Your task to perform on an android device: set an alarm Image 0: 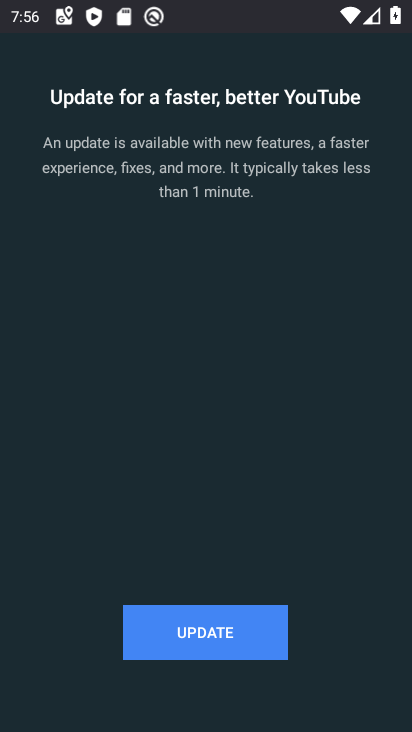
Step 0: press back button
Your task to perform on an android device: set an alarm Image 1: 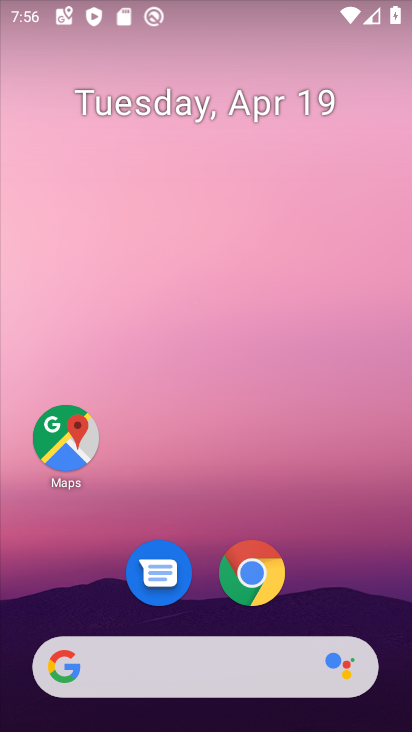
Step 1: drag from (263, 706) to (212, 150)
Your task to perform on an android device: set an alarm Image 2: 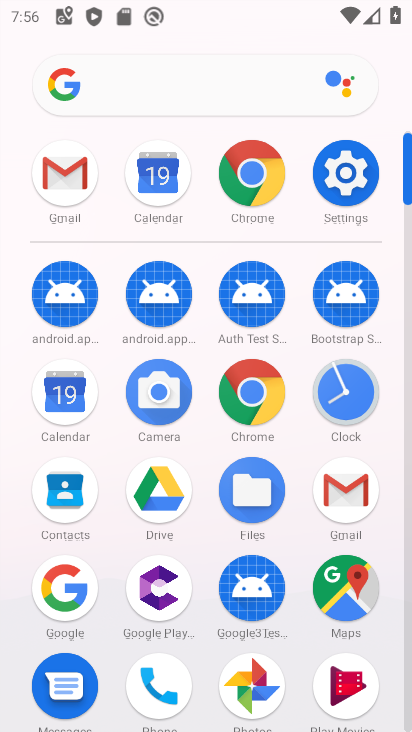
Step 2: click (342, 379)
Your task to perform on an android device: set an alarm Image 3: 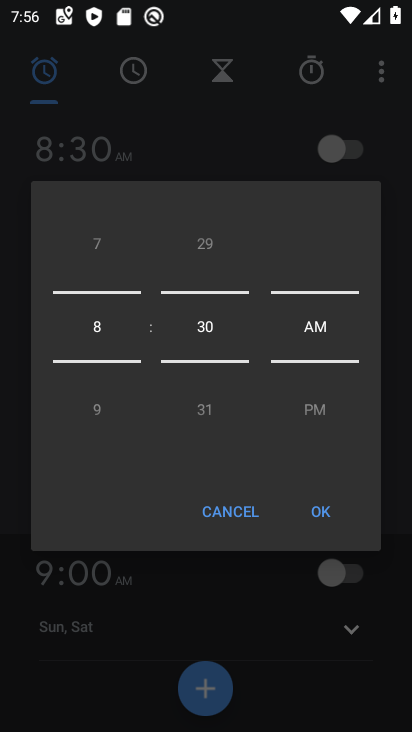
Step 3: click (225, 501)
Your task to perform on an android device: set an alarm Image 4: 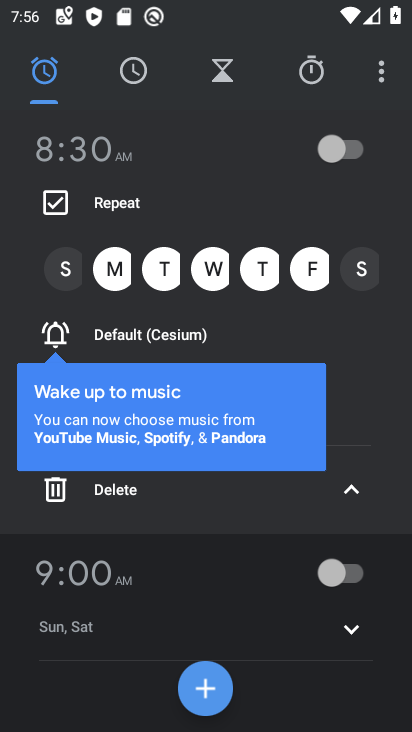
Step 4: click (354, 139)
Your task to perform on an android device: set an alarm Image 5: 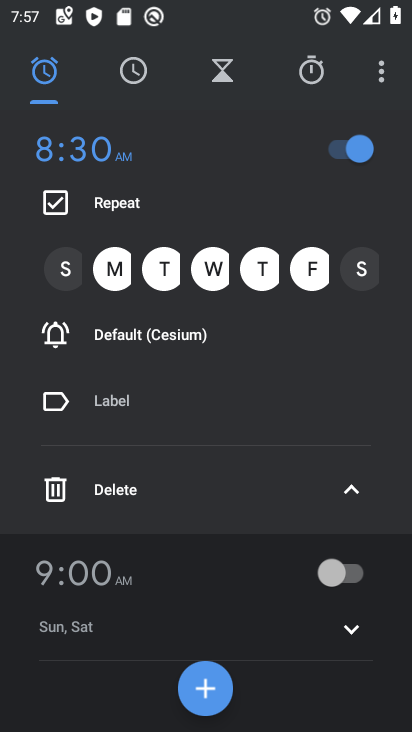
Step 5: task complete